Your task to perform on an android device: Show the shopping cart on newegg. Add logitech g933 to the cart on newegg Image 0: 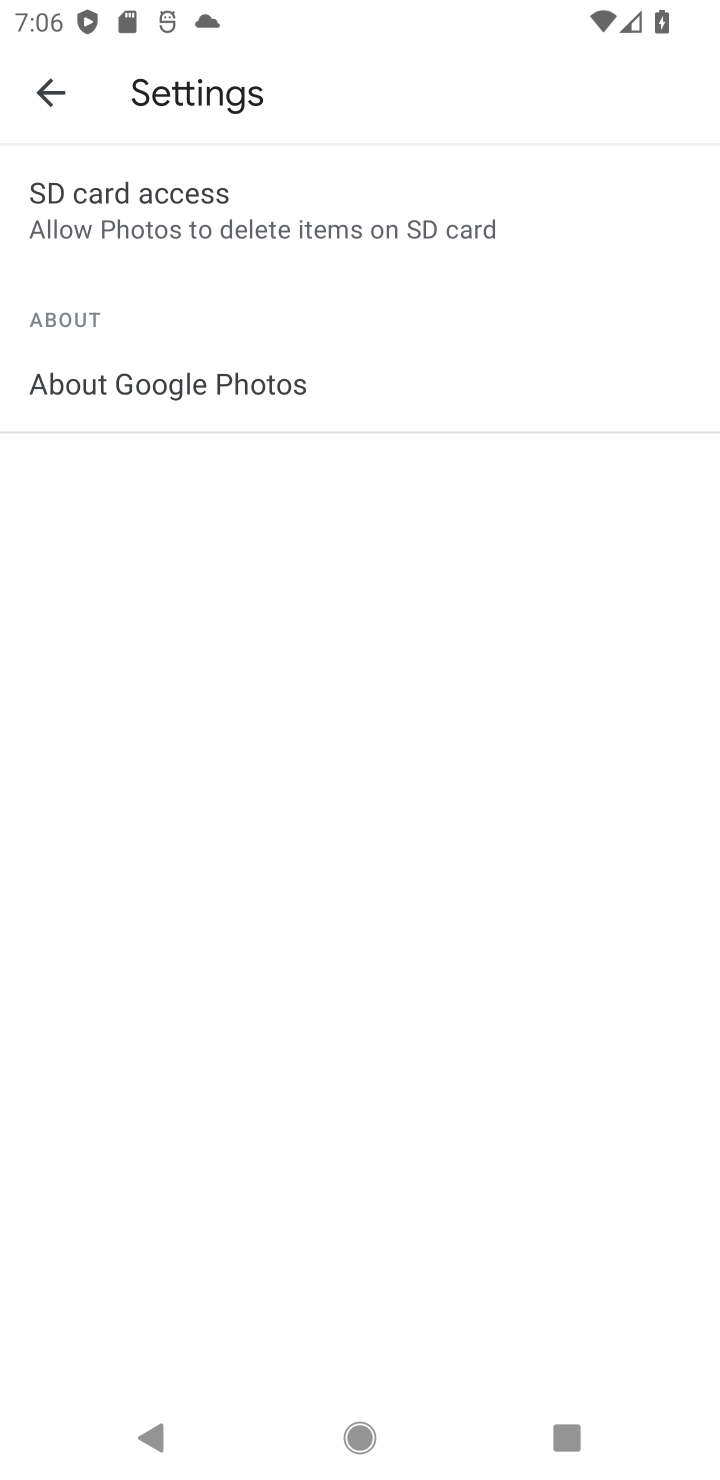
Step 0: press home button
Your task to perform on an android device: Show the shopping cart on newegg. Add logitech g933 to the cart on newegg Image 1: 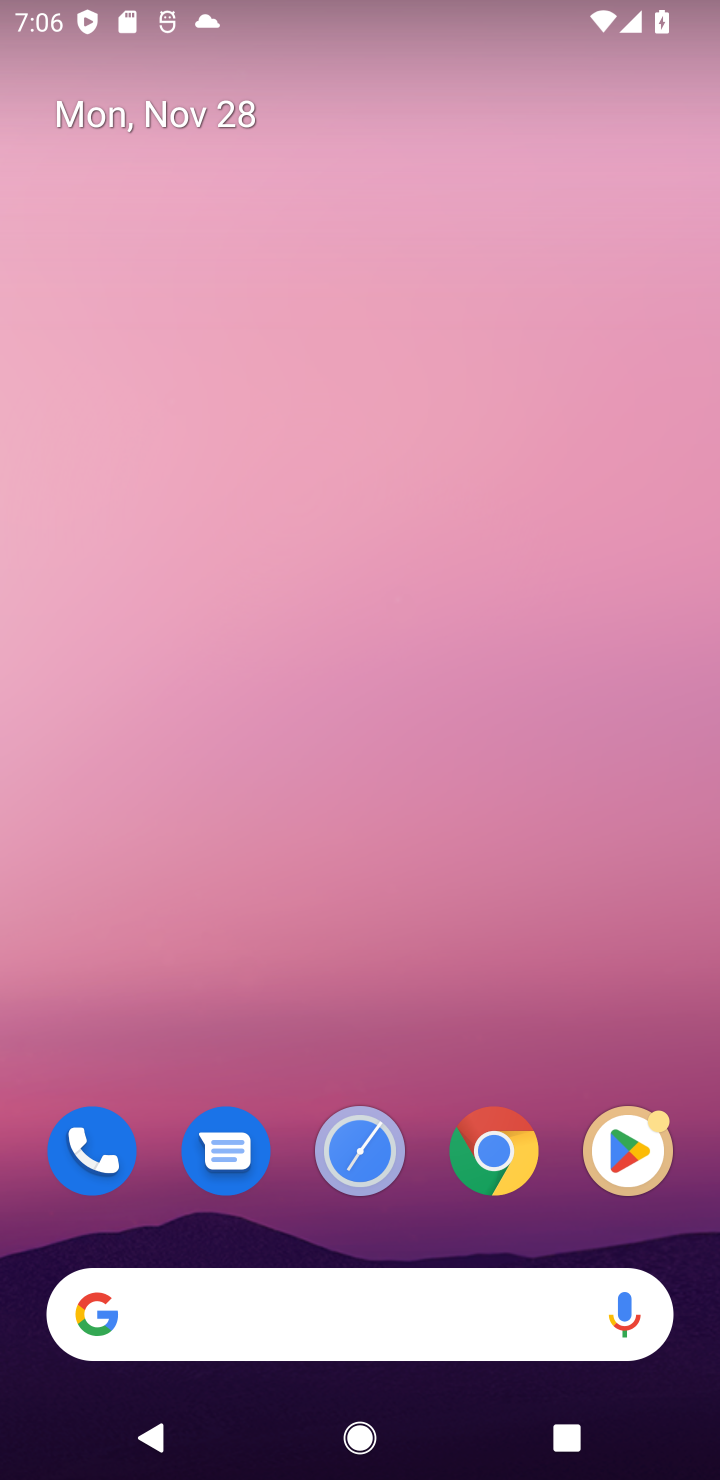
Step 1: click (302, 1336)
Your task to perform on an android device: Show the shopping cart on newegg. Add logitech g933 to the cart on newegg Image 2: 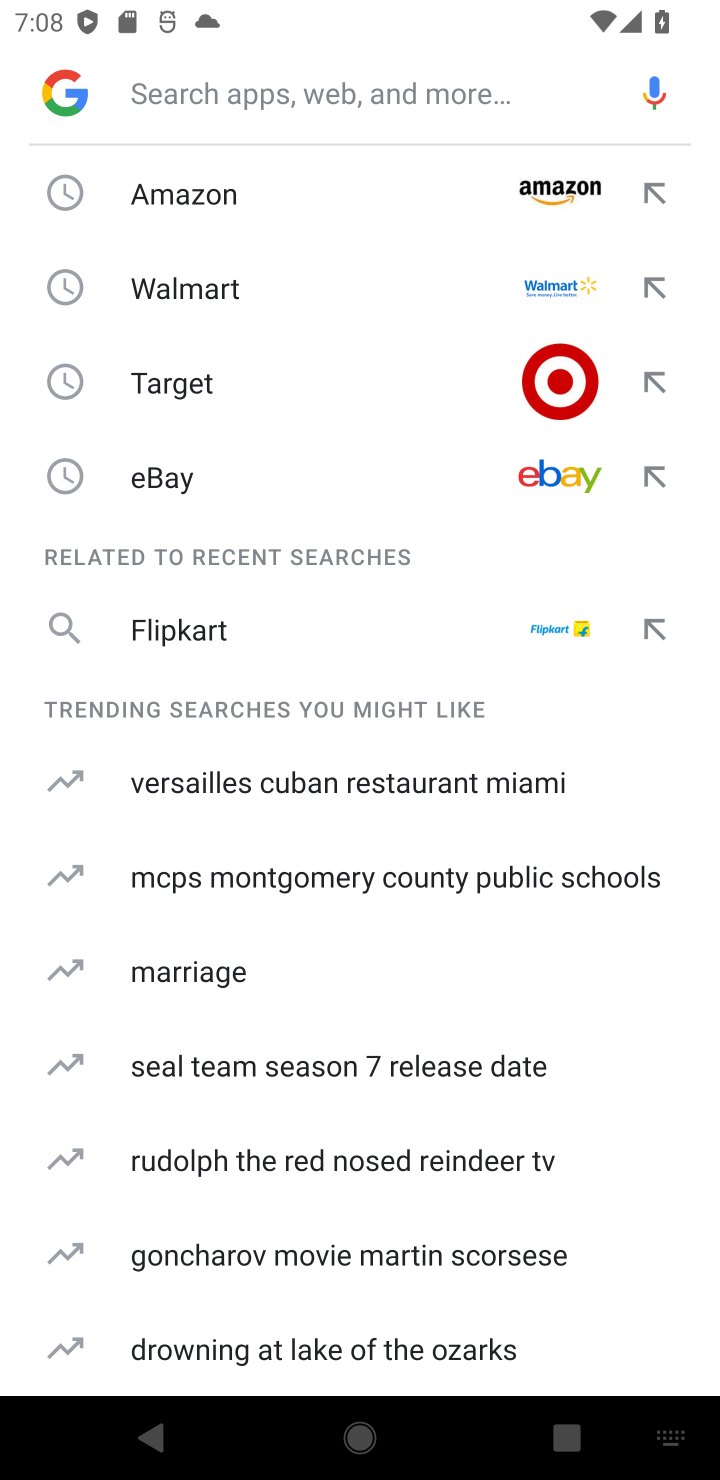
Step 2: type "newegg"
Your task to perform on an android device: Show the shopping cart on newegg. Add logitech g933 to the cart on newegg Image 3: 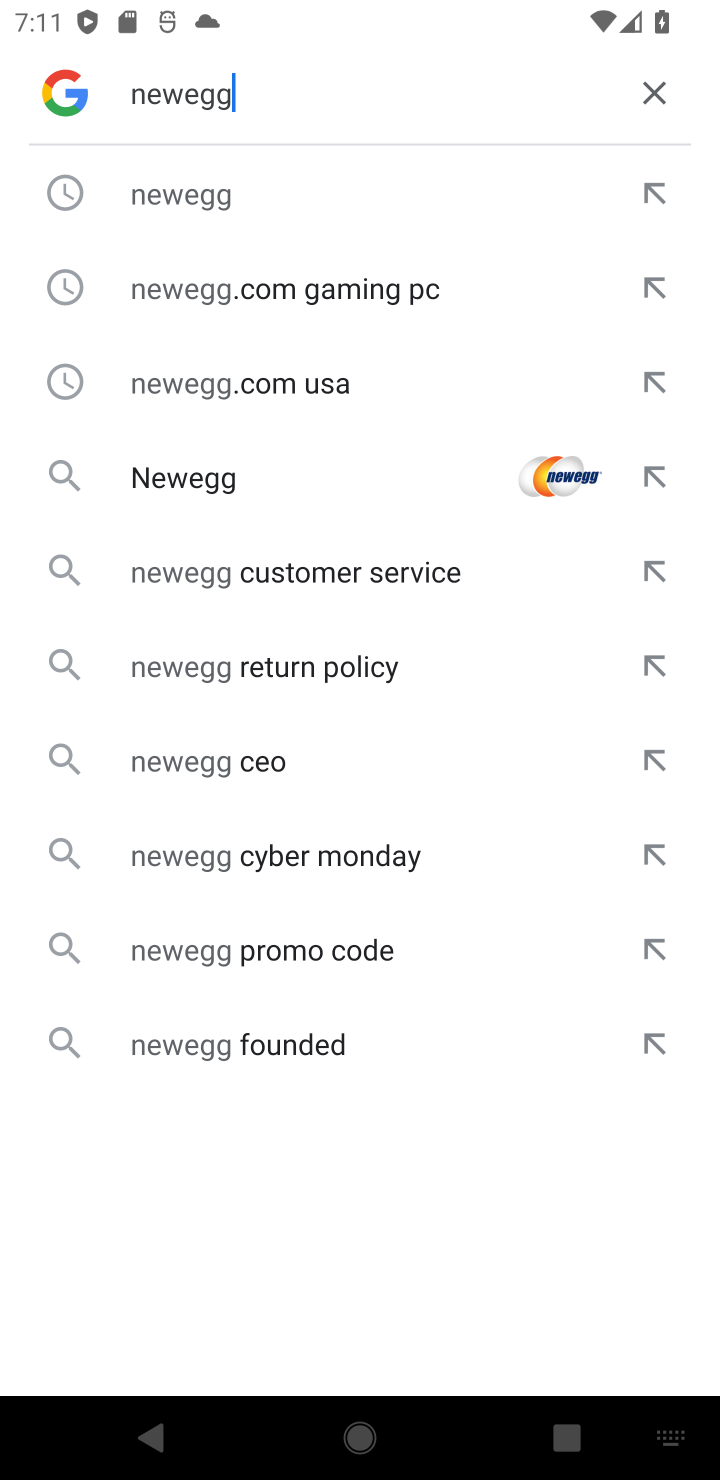
Step 3: click (162, 209)
Your task to perform on an android device: Show the shopping cart on newegg. Add logitech g933 to the cart on newegg Image 4: 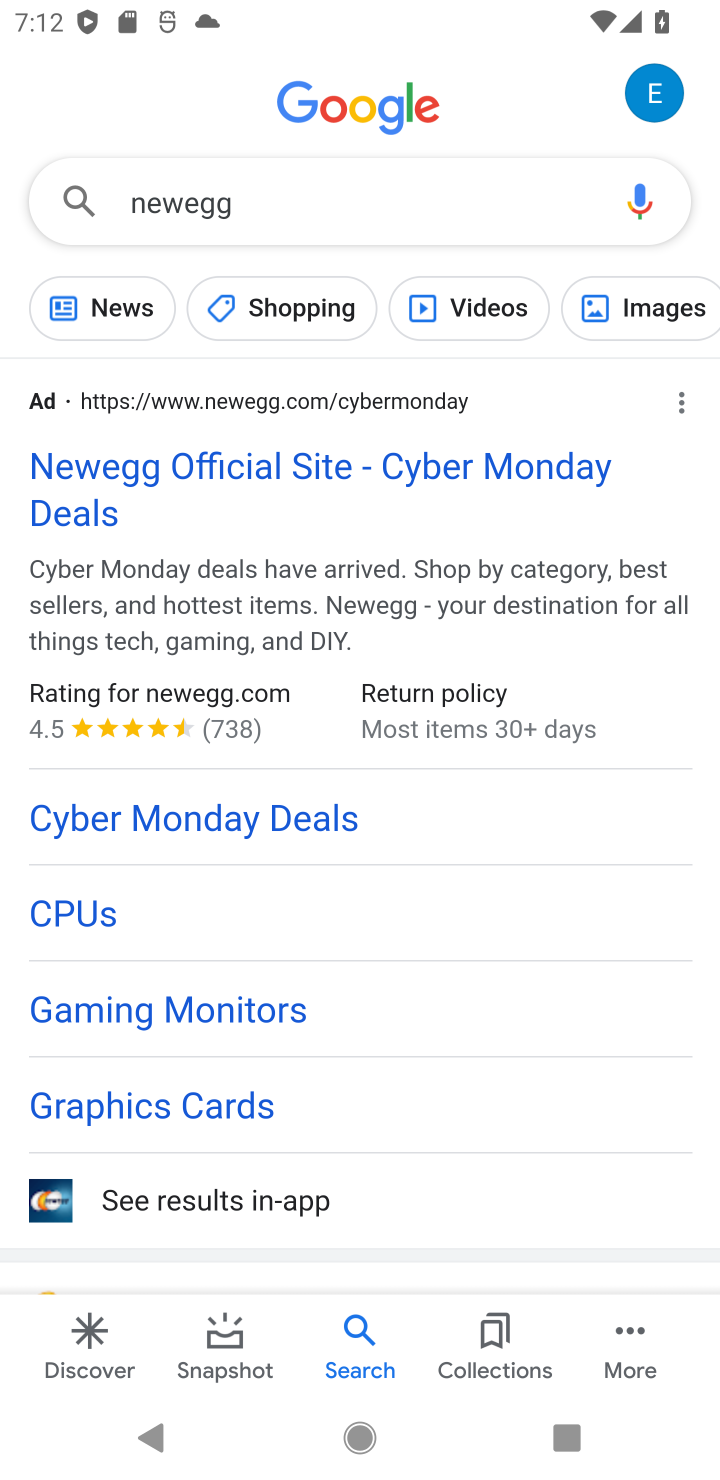
Step 4: click (102, 465)
Your task to perform on an android device: Show the shopping cart on newegg. Add logitech g933 to the cart on newegg Image 5: 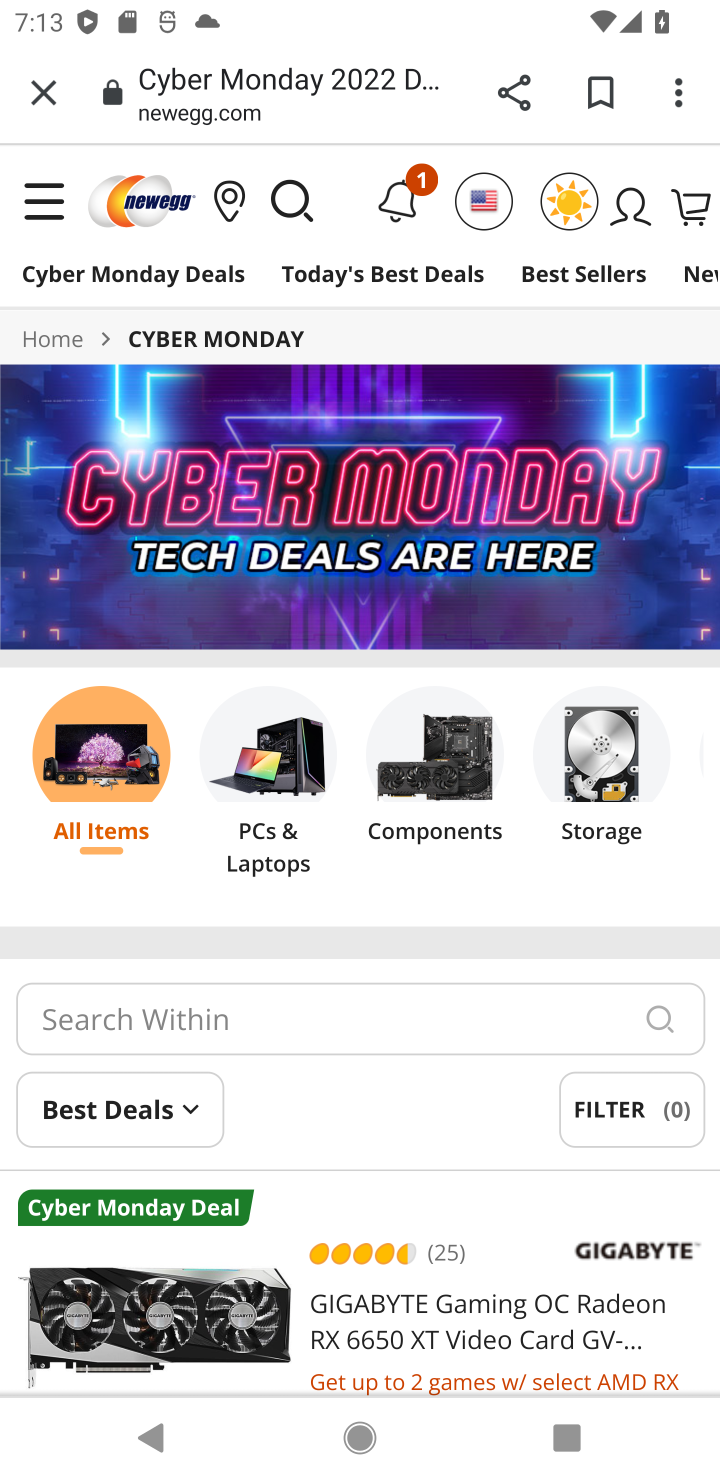
Step 5: task complete